Your task to perform on an android device: open chrome and create a bookmark for the current page Image 0: 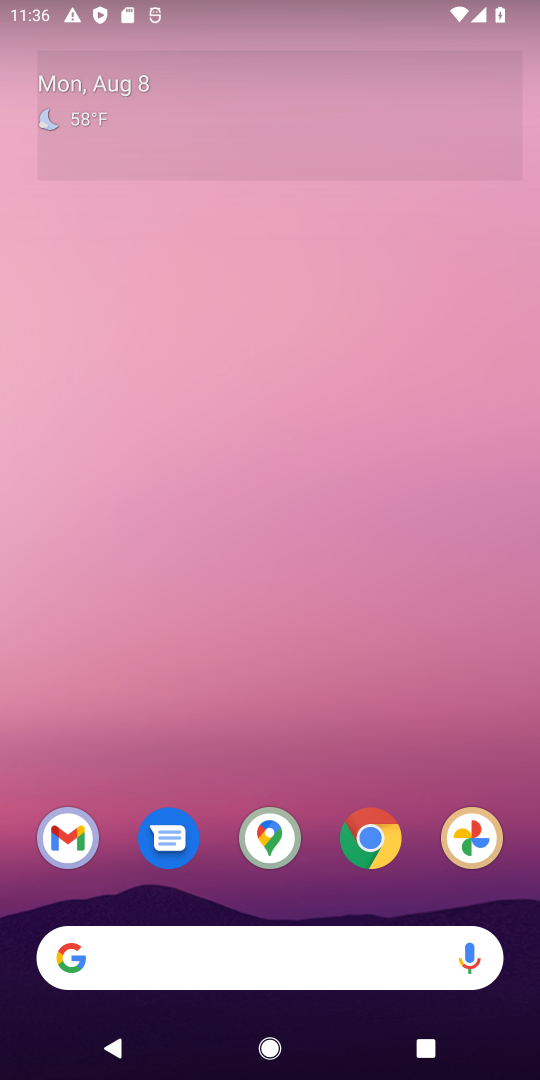
Step 0: press home button
Your task to perform on an android device: open chrome and create a bookmark for the current page Image 1: 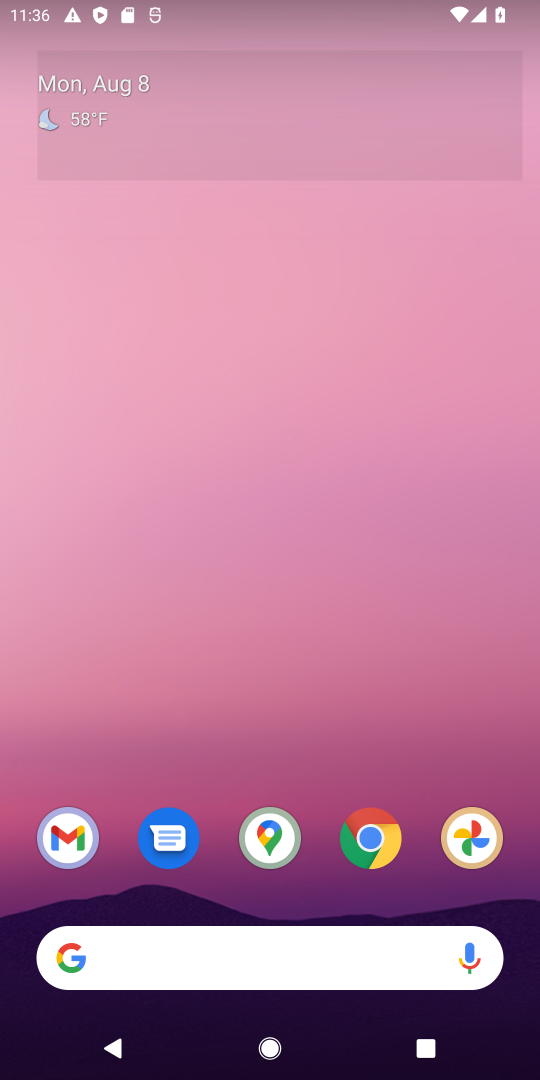
Step 1: click (376, 837)
Your task to perform on an android device: open chrome and create a bookmark for the current page Image 2: 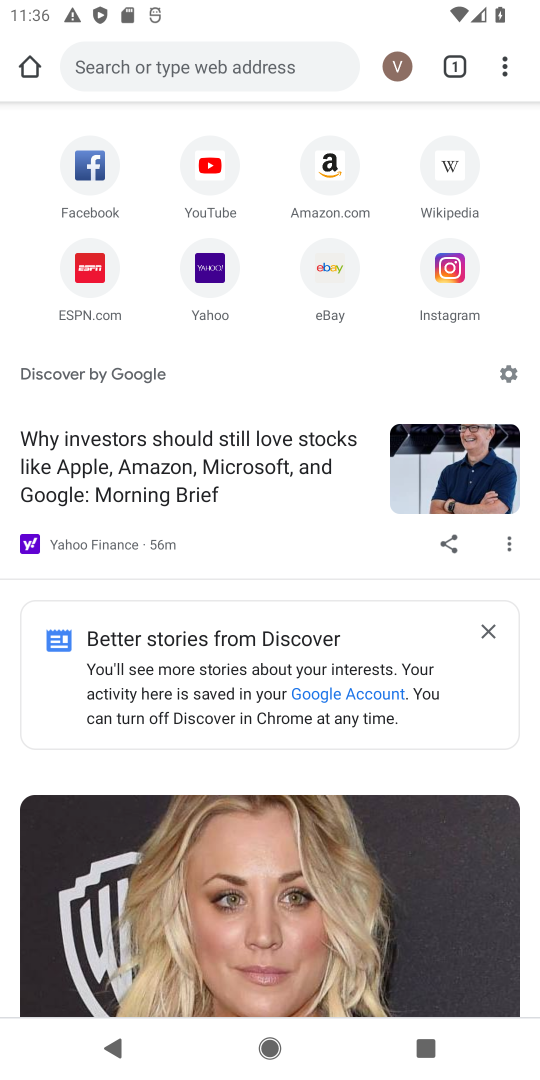
Step 2: drag from (506, 66) to (288, 72)
Your task to perform on an android device: open chrome and create a bookmark for the current page Image 3: 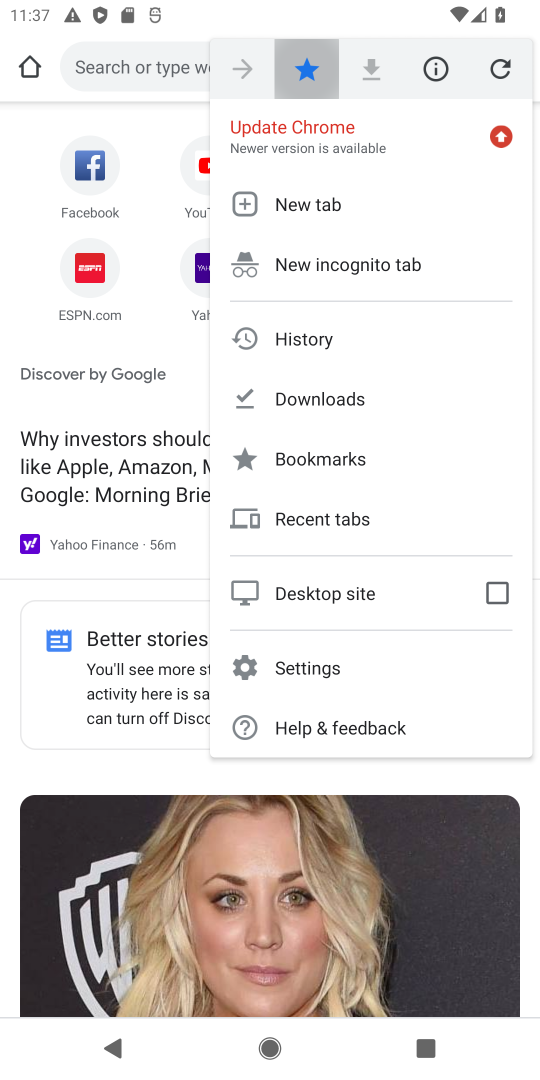
Step 3: click (301, 70)
Your task to perform on an android device: open chrome and create a bookmark for the current page Image 4: 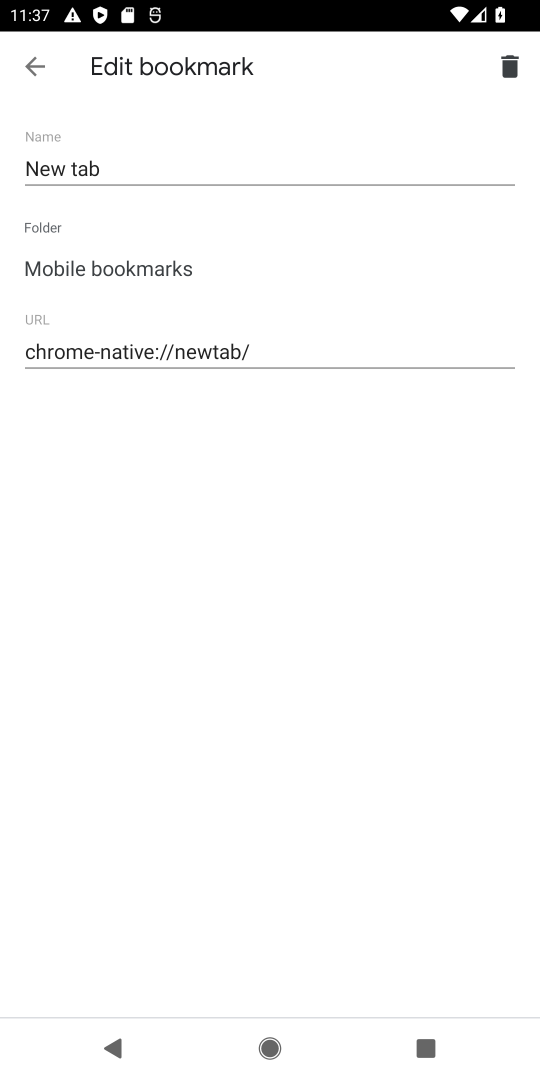
Step 4: task complete